Your task to perform on an android device: Search for razer nari on bestbuy.com, select the first entry, add it to the cart, then select checkout. Image 0: 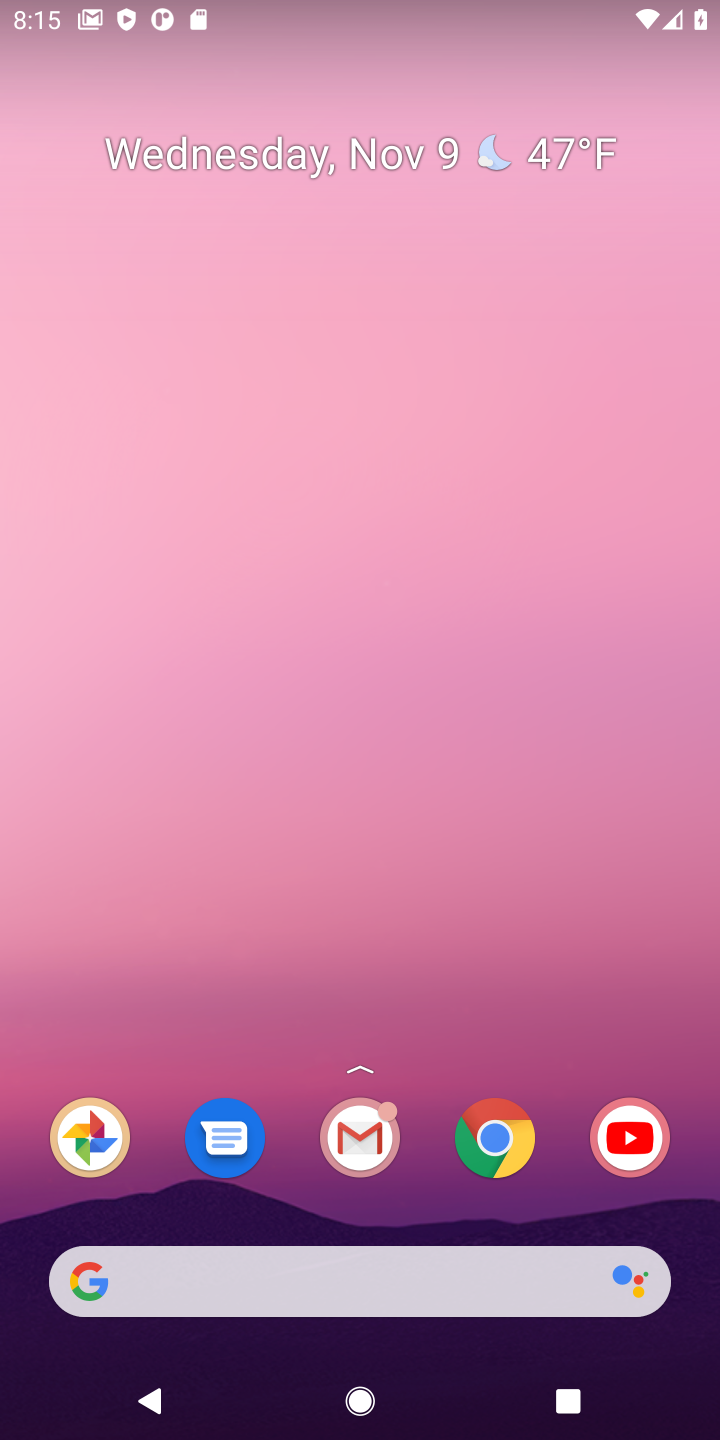
Step 0: drag from (422, 1227) to (501, 152)
Your task to perform on an android device: Search for razer nari on bestbuy.com, select the first entry, add it to the cart, then select checkout. Image 1: 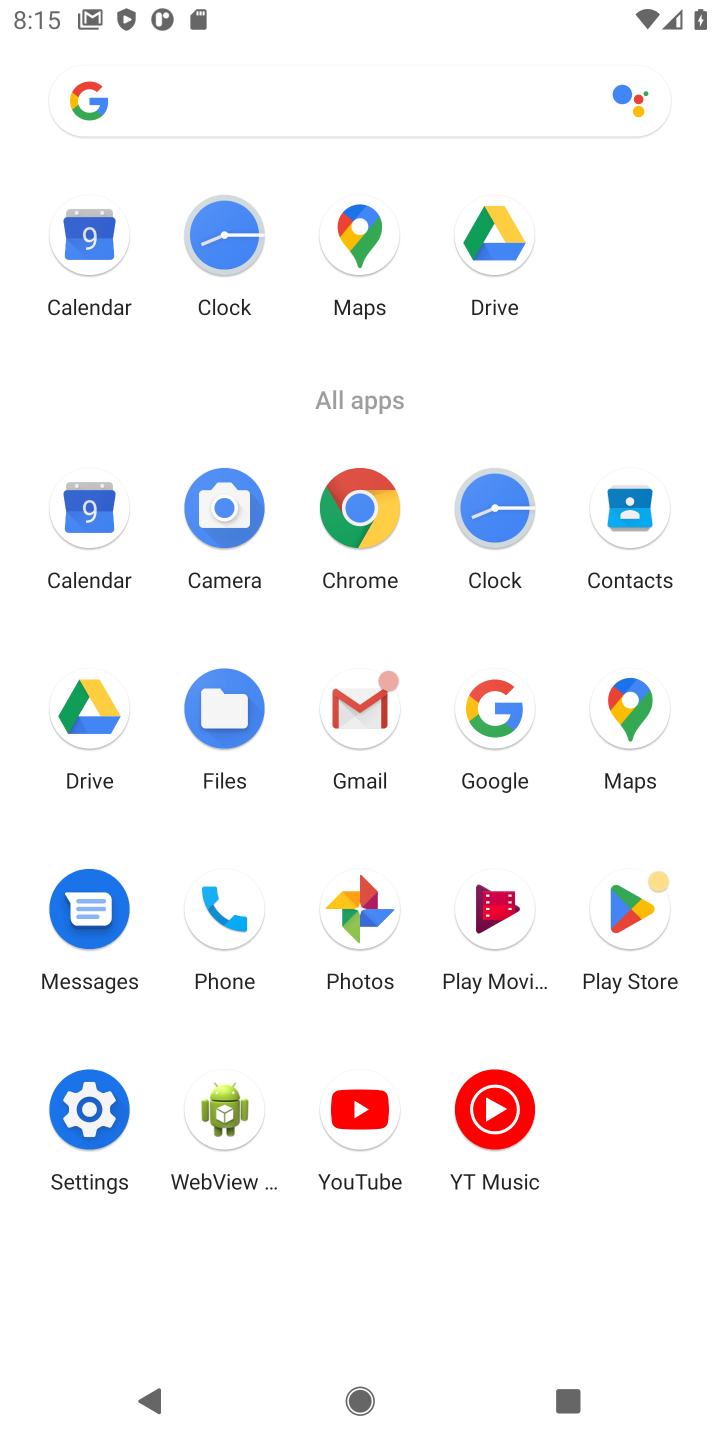
Step 1: click (347, 524)
Your task to perform on an android device: Search for razer nari on bestbuy.com, select the first entry, add it to the cart, then select checkout. Image 2: 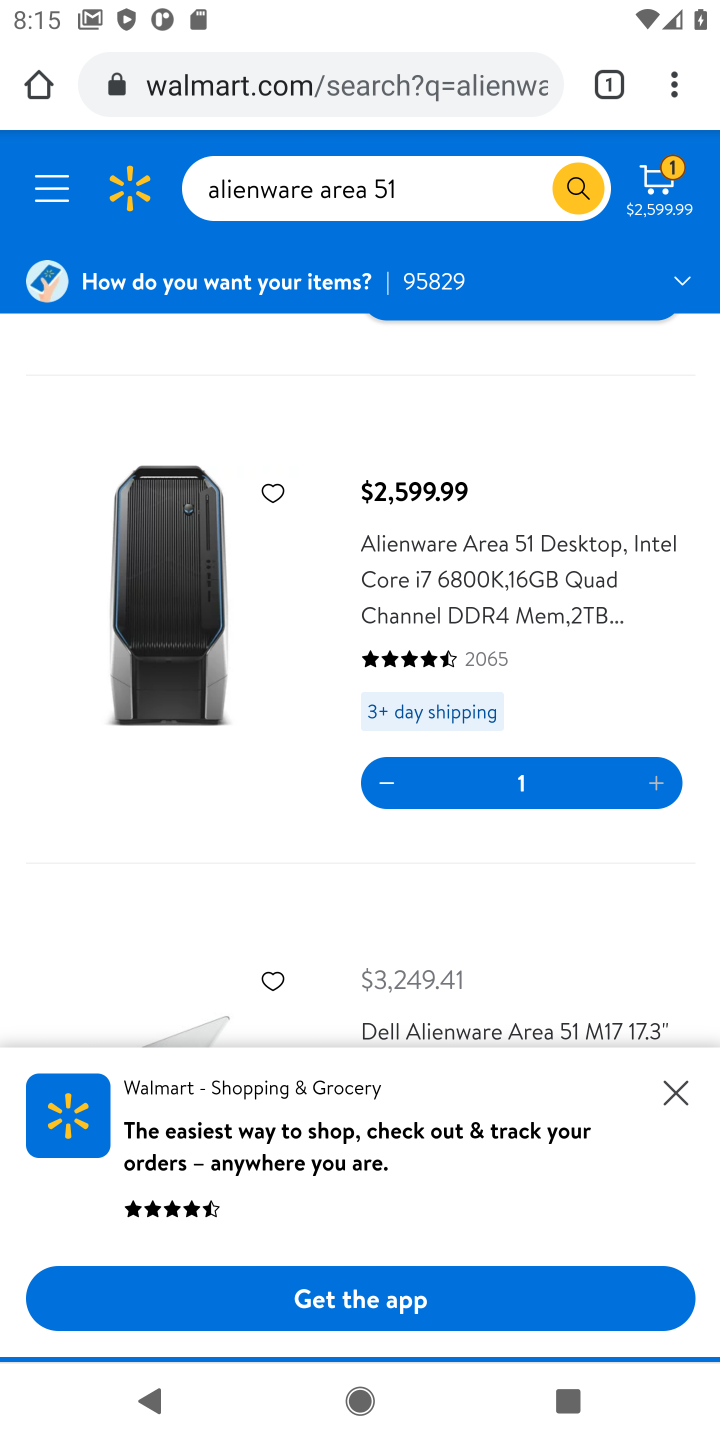
Step 2: click (383, 78)
Your task to perform on an android device: Search for razer nari on bestbuy.com, select the first entry, add it to the cart, then select checkout. Image 3: 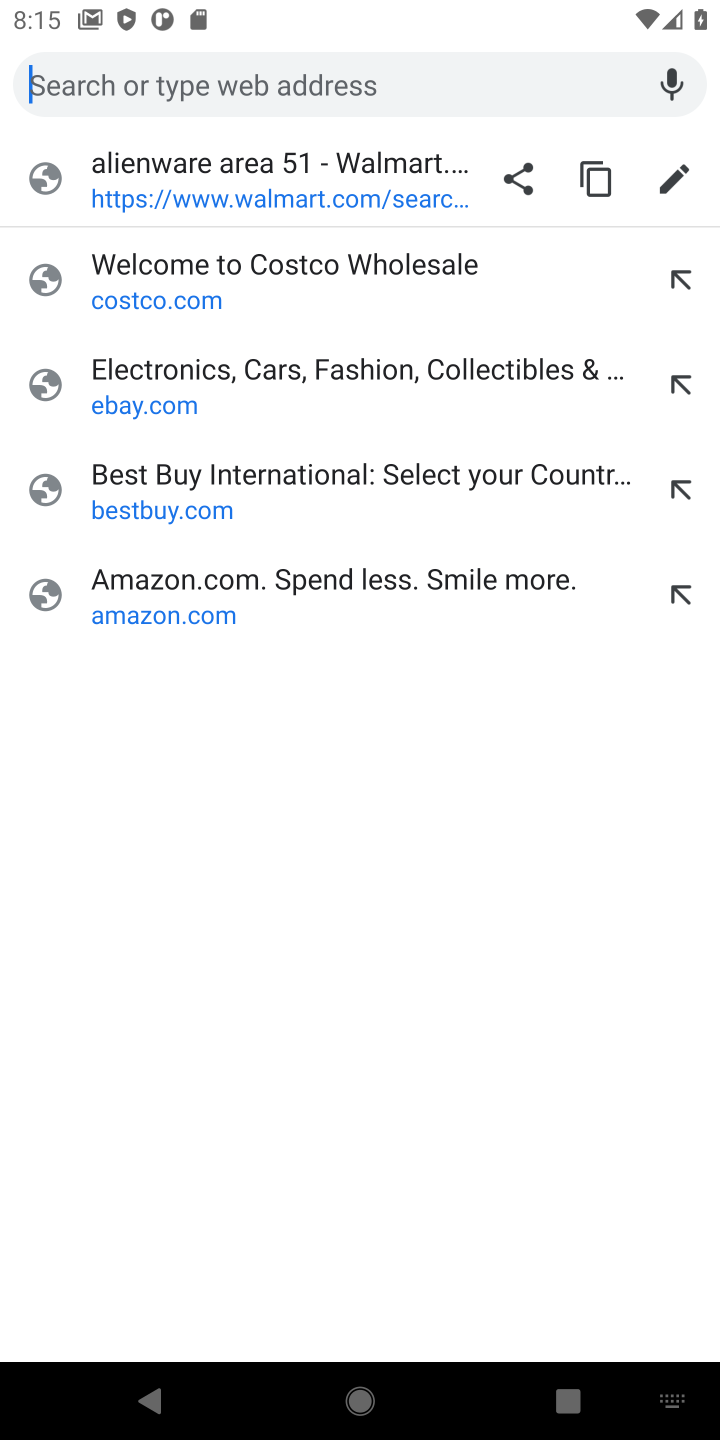
Step 3: type "bestbuy.com"
Your task to perform on an android device: Search for razer nari on bestbuy.com, select the first entry, add it to the cart, then select checkout. Image 4: 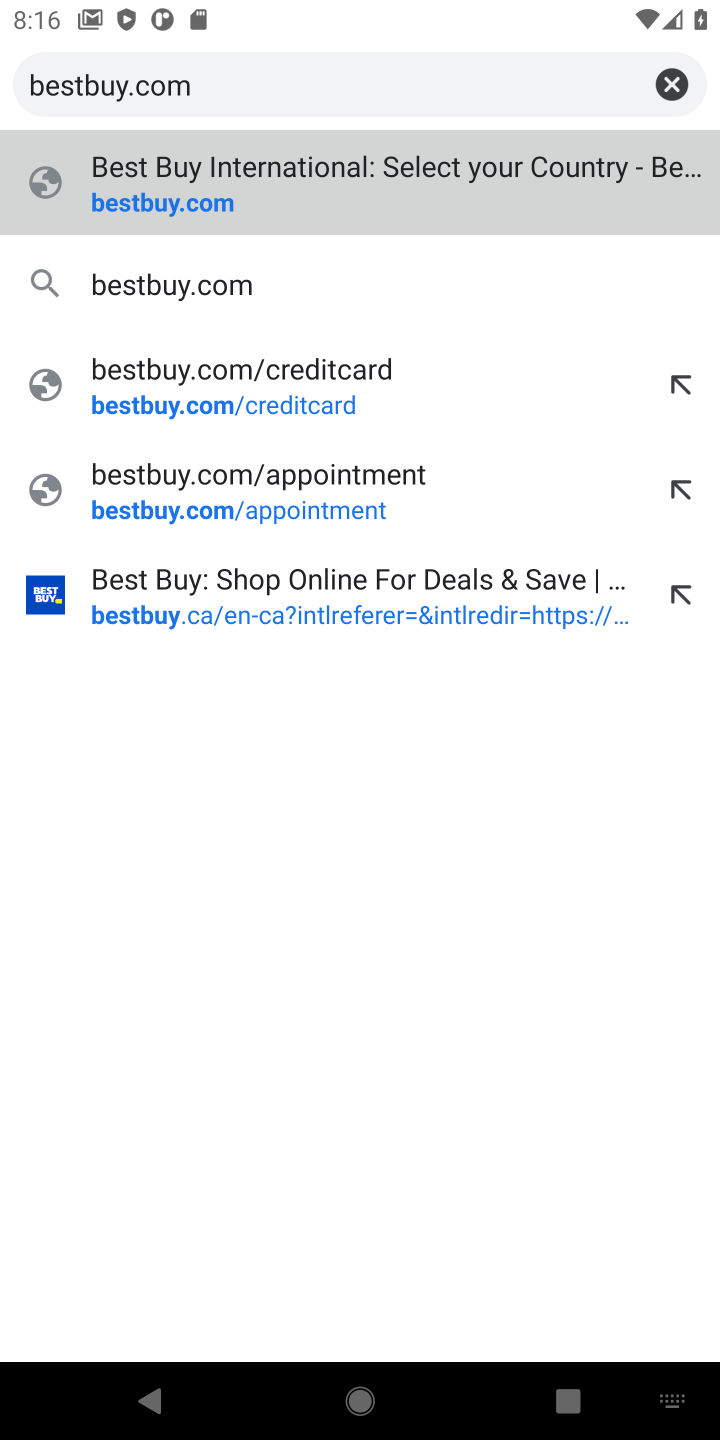
Step 4: press enter
Your task to perform on an android device: Search for razer nari on bestbuy.com, select the first entry, add it to the cart, then select checkout. Image 5: 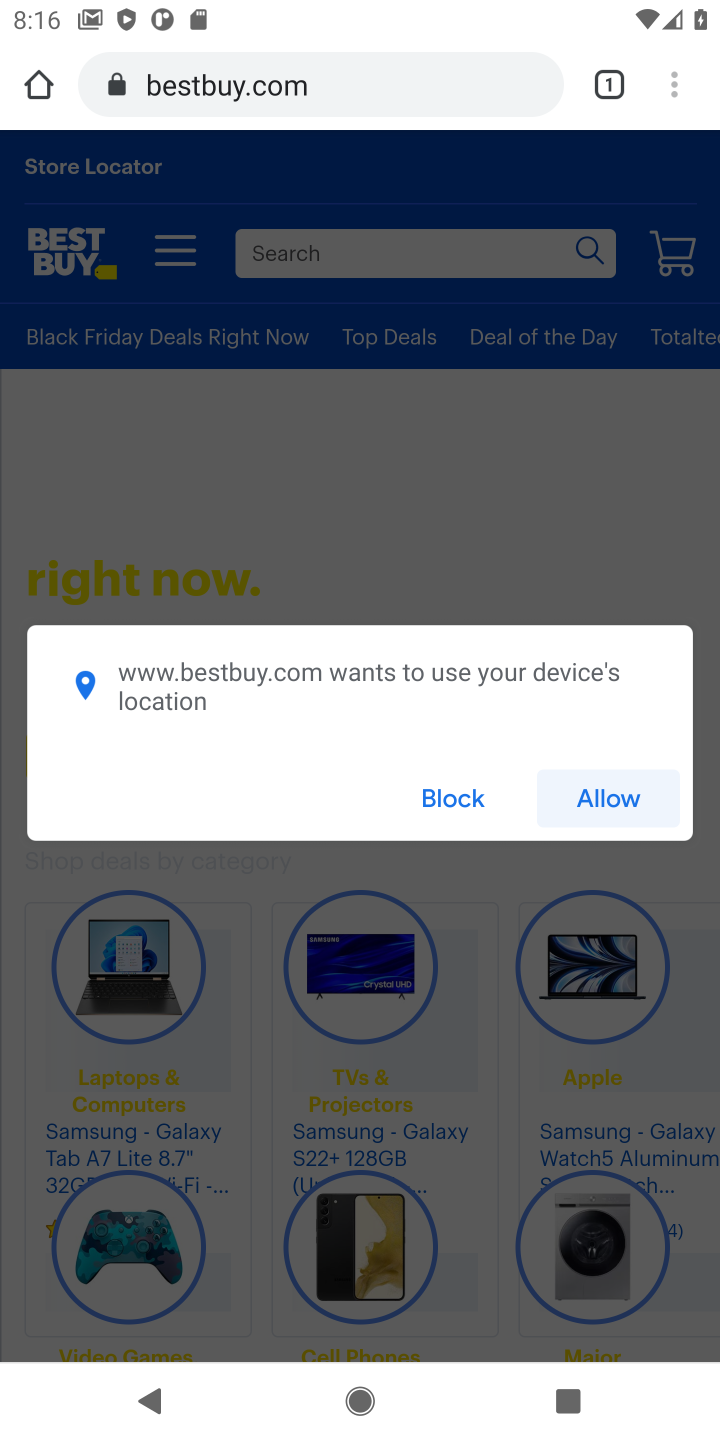
Step 5: click (467, 799)
Your task to perform on an android device: Search for razer nari on bestbuy.com, select the first entry, add it to the cart, then select checkout. Image 6: 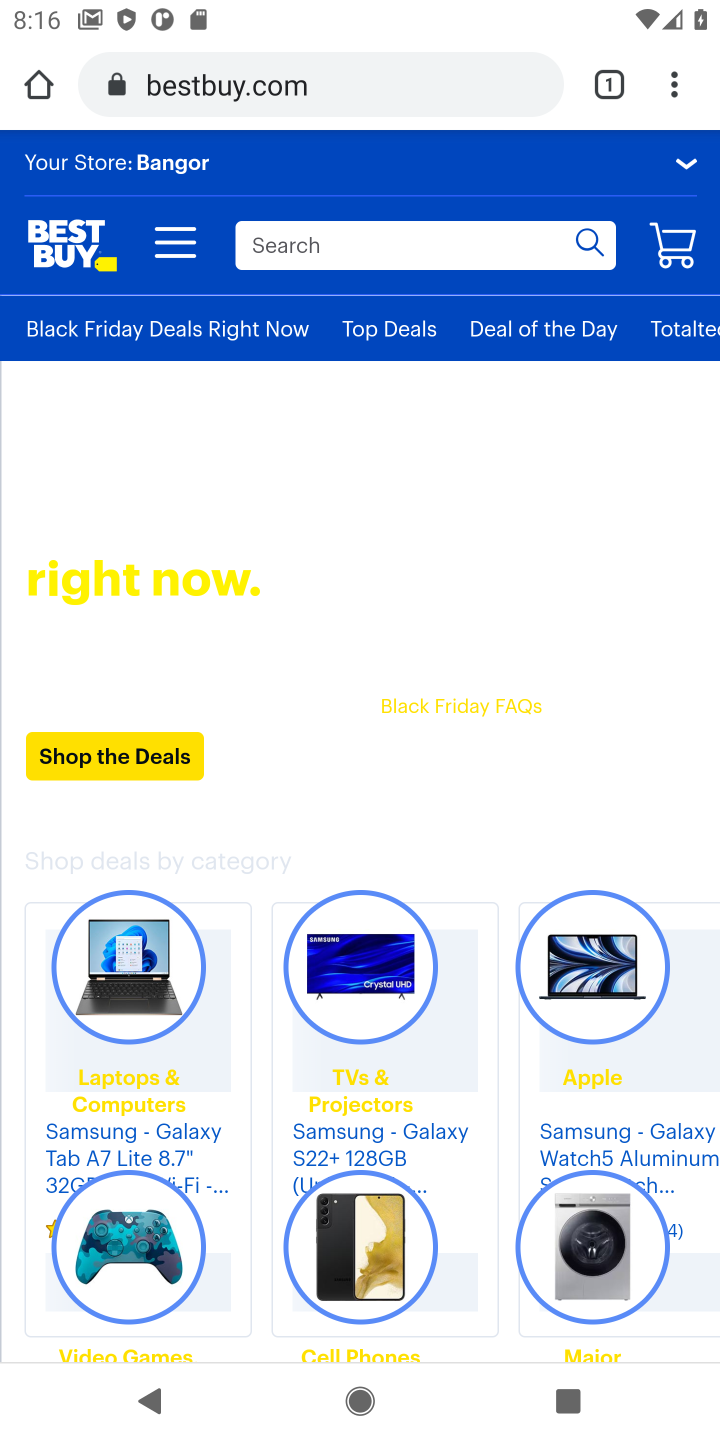
Step 6: click (437, 258)
Your task to perform on an android device: Search for razer nari on bestbuy.com, select the first entry, add it to the cart, then select checkout. Image 7: 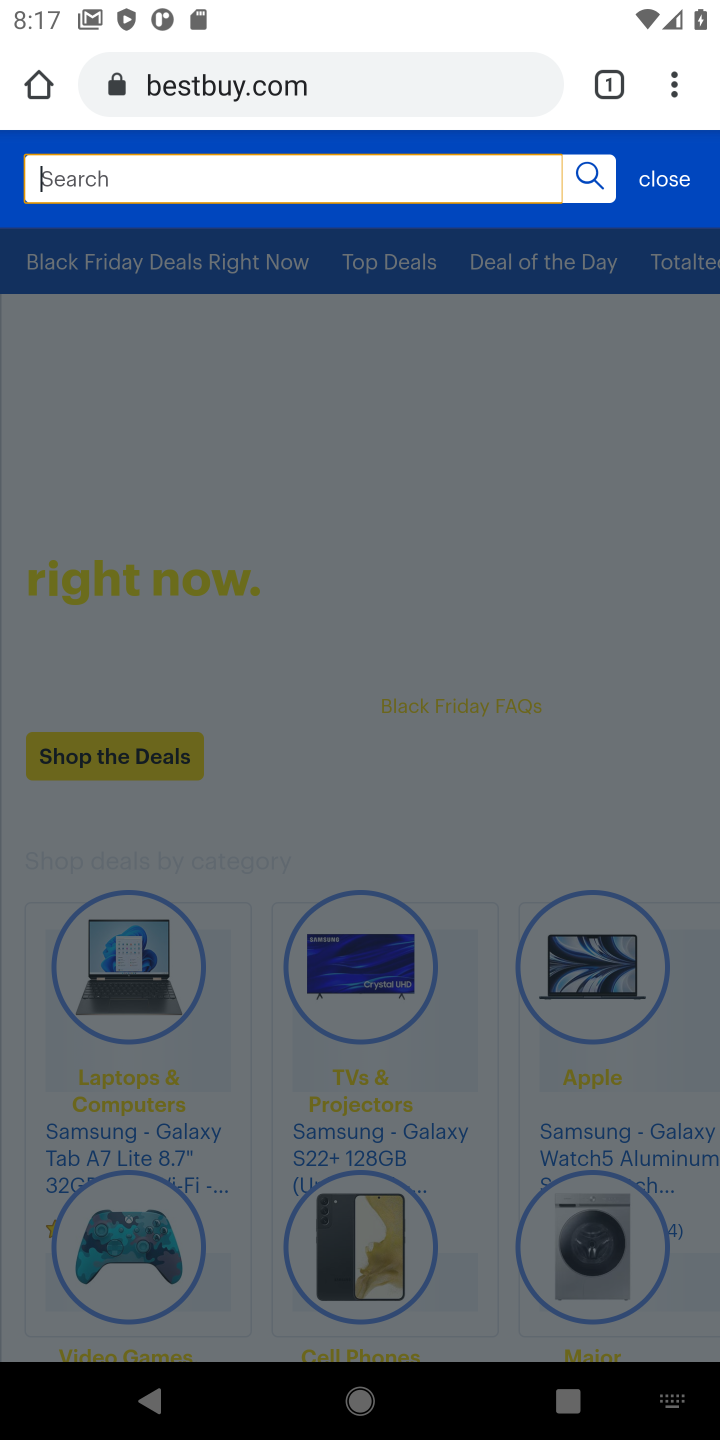
Step 7: type "razer nari"
Your task to perform on an android device: Search for razer nari on bestbuy.com, select the first entry, add it to the cart, then select checkout. Image 8: 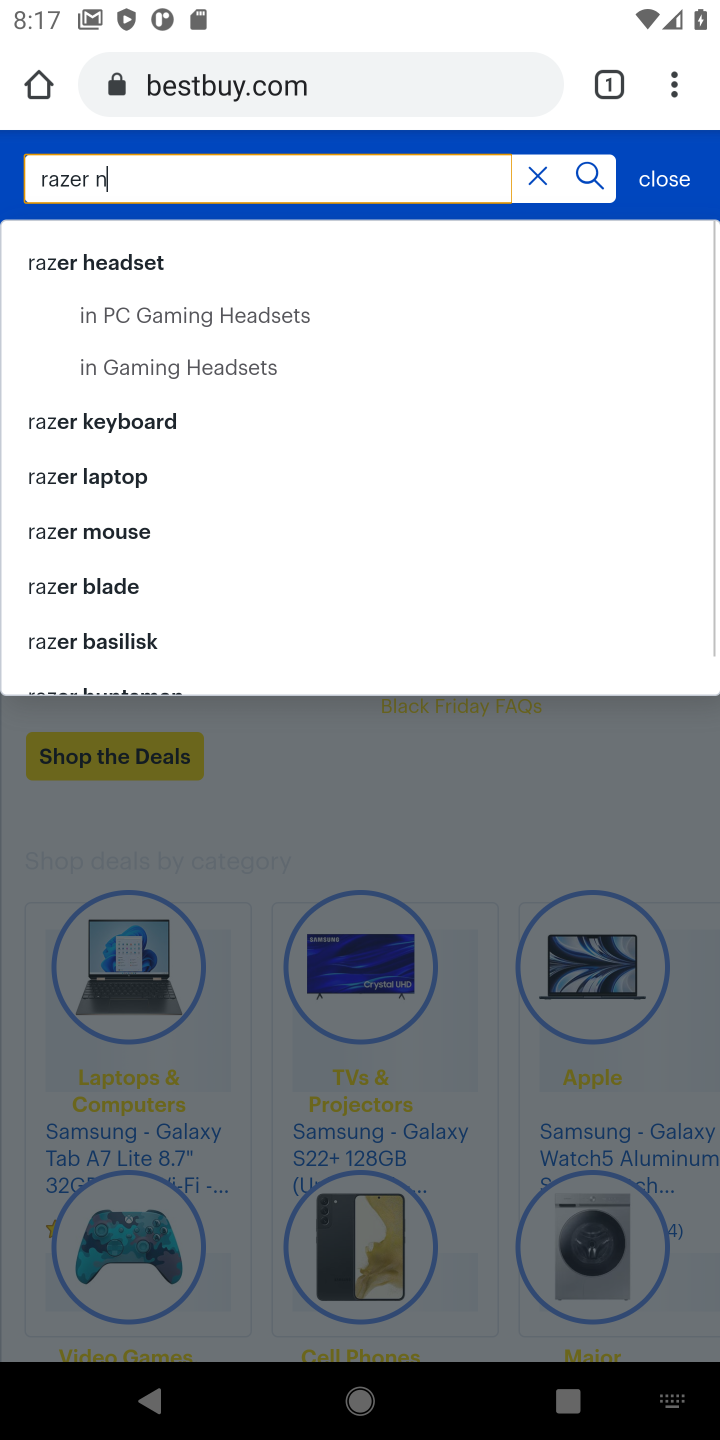
Step 8: press enter
Your task to perform on an android device: Search for razer nari on bestbuy.com, select the first entry, add it to the cart, then select checkout. Image 9: 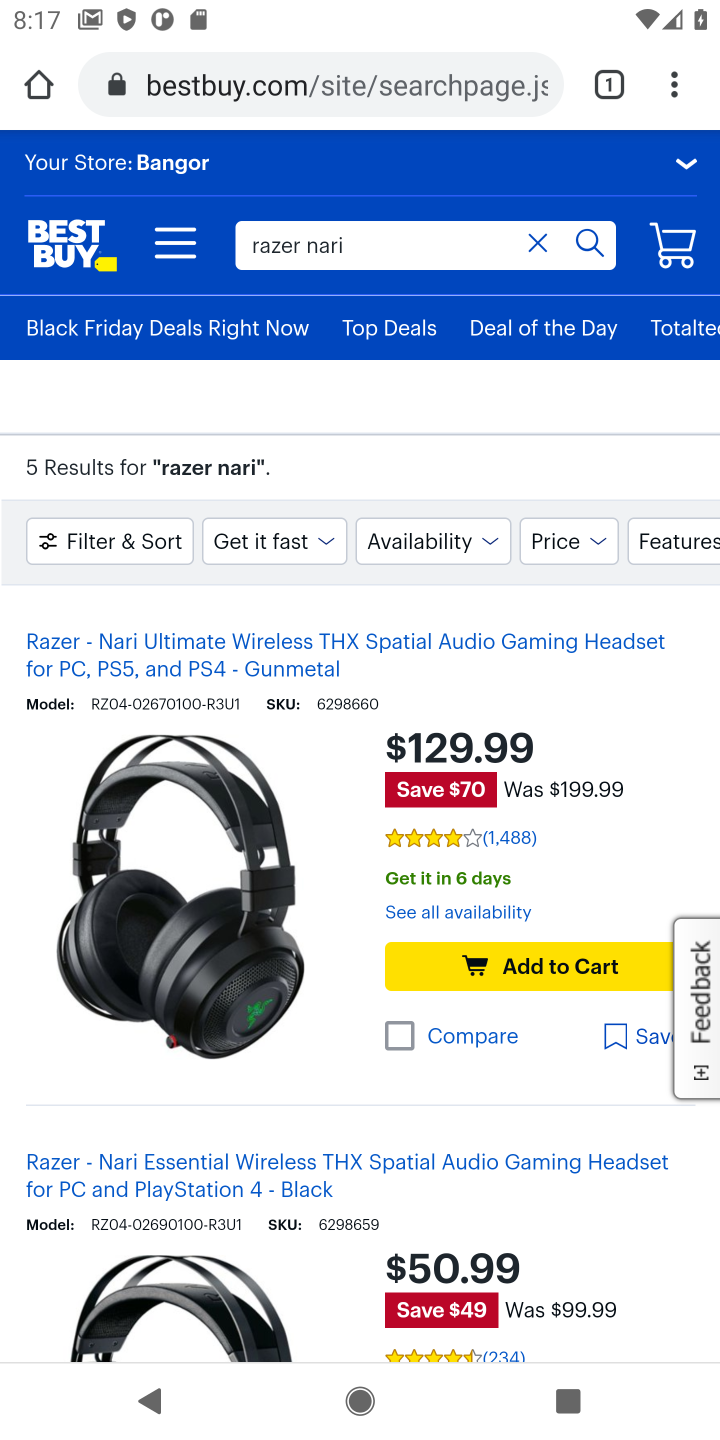
Step 9: click (556, 963)
Your task to perform on an android device: Search for razer nari on bestbuy.com, select the first entry, add it to the cart, then select checkout. Image 10: 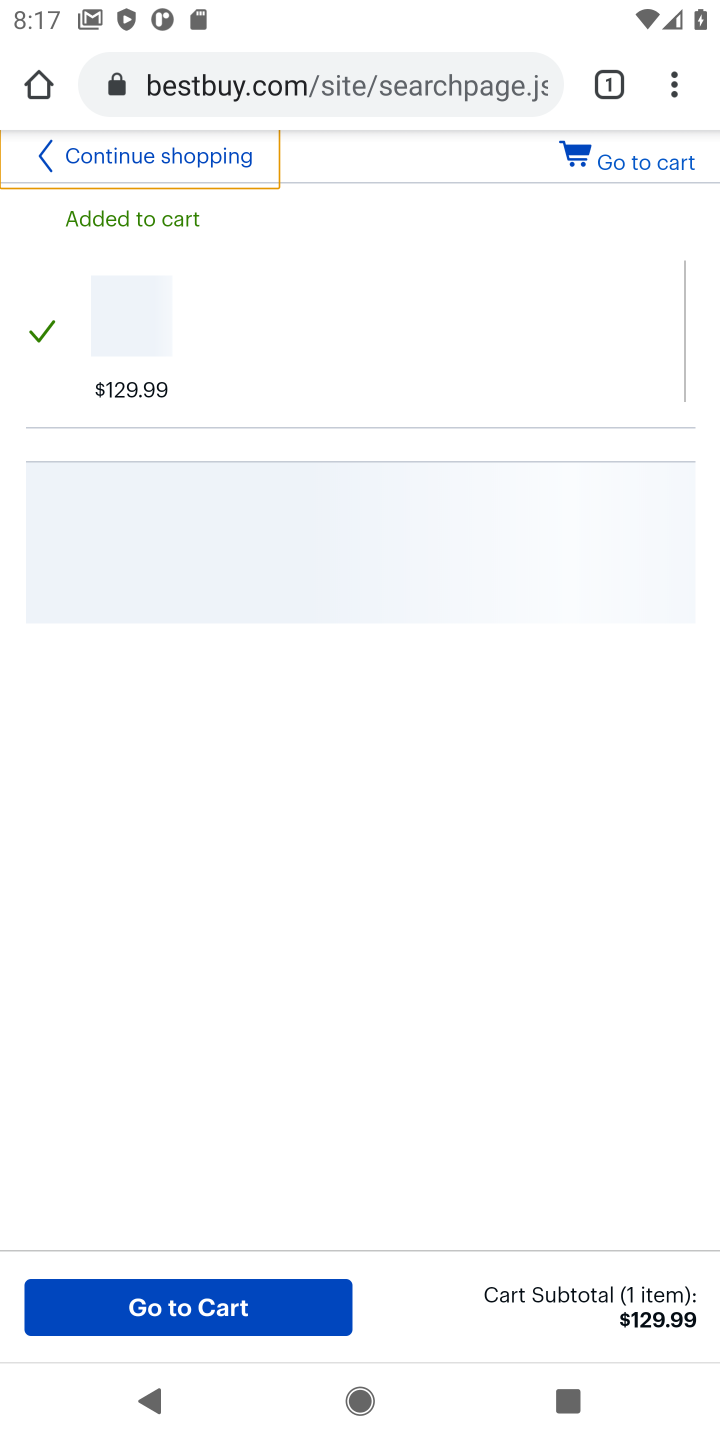
Step 10: click (289, 1290)
Your task to perform on an android device: Search for razer nari on bestbuy.com, select the first entry, add it to the cart, then select checkout. Image 11: 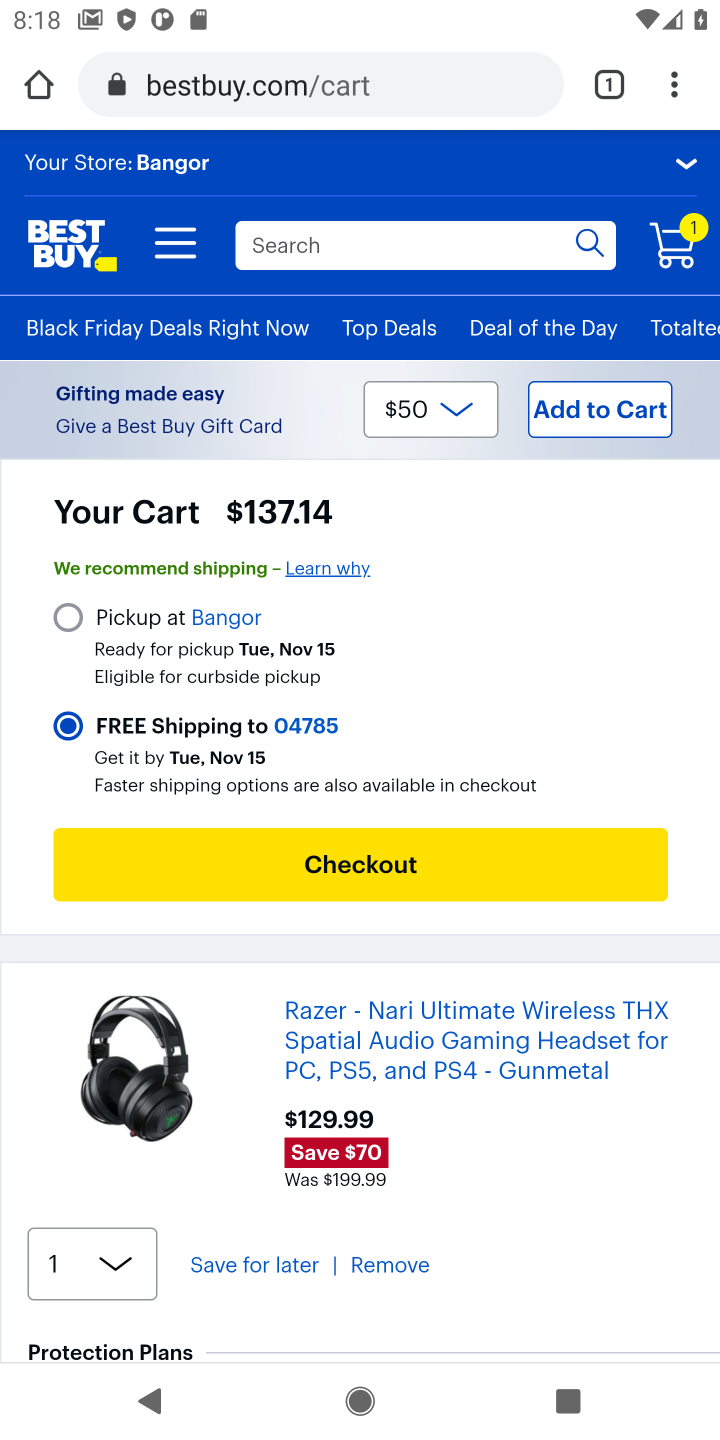
Step 11: click (331, 870)
Your task to perform on an android device: Search for razer nari on bestbuy.com, select the first entry, add it to the cart, then select checkout. Image 12: 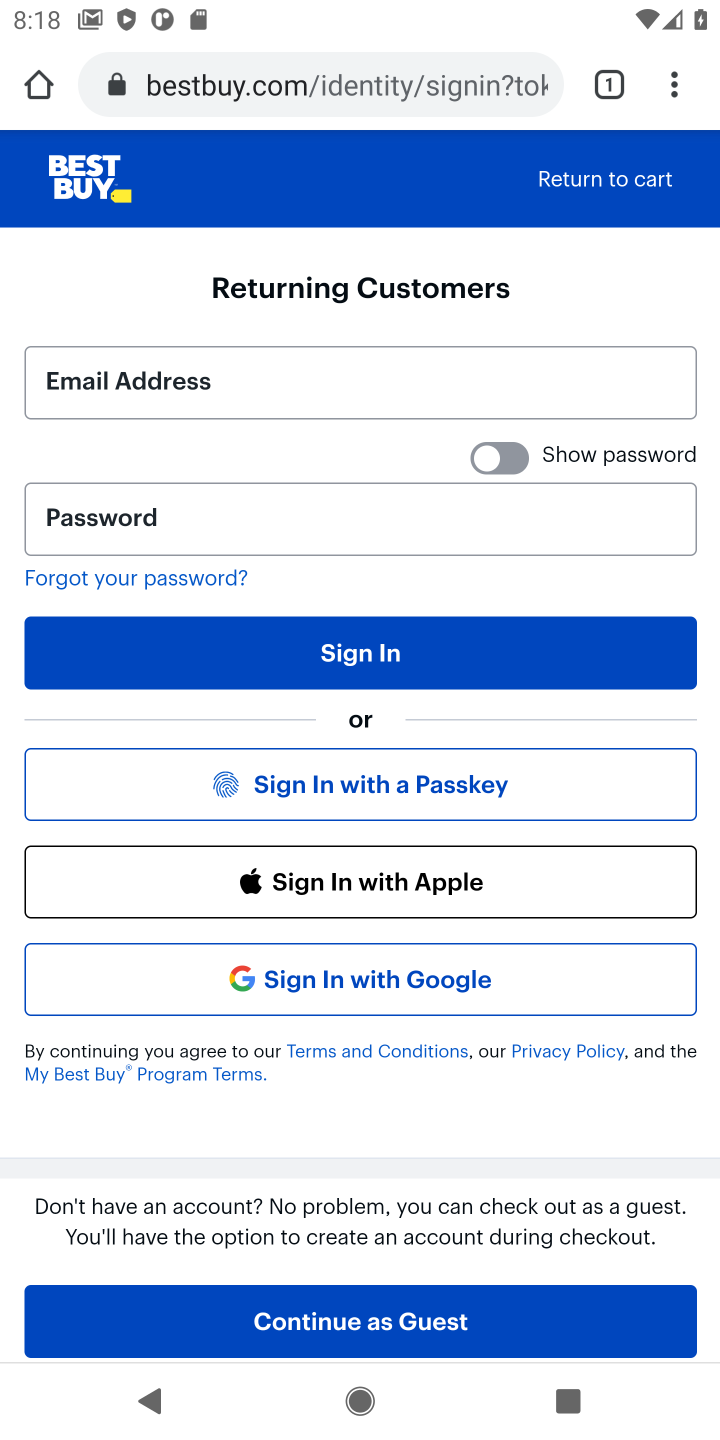
Step 12: task complete